Your task to perform on an android device: snooze an email in the gmail app Image 0: 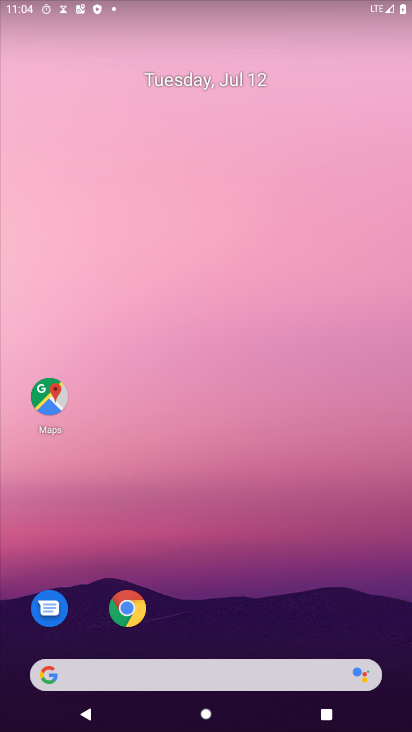
Step 0: drag from (256, 612) to (280, 124)
Your task to perform on an android device: snooze an email in the gmail app Image 1: 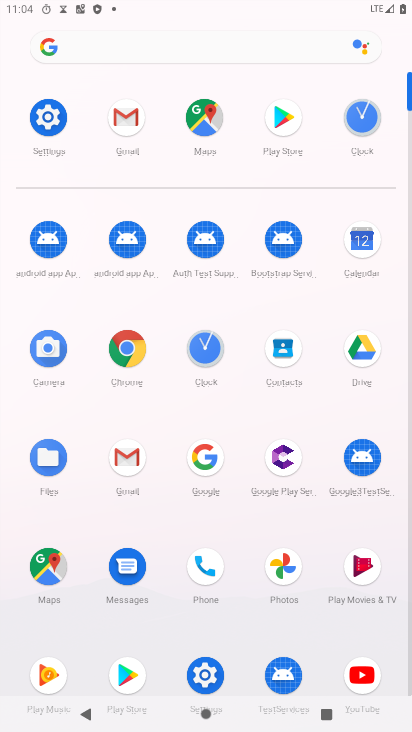
Step 1: click (125, 455)
Your task to perform on an android device: snooze an email in the gmail app Image 2: 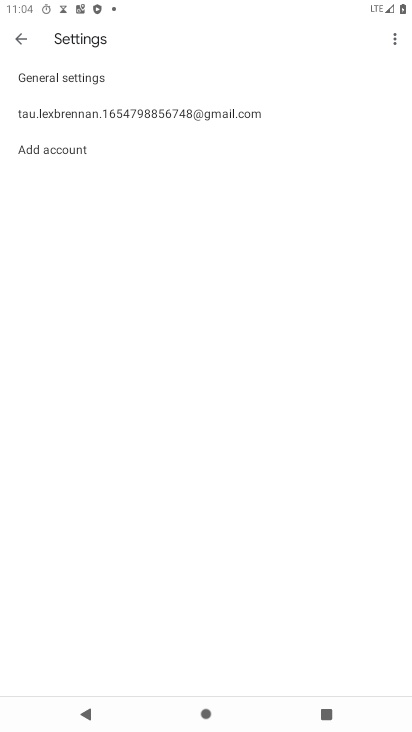
Step 2: click (23, 39)
Your task to perform on an android device: snooze an email in the gmail app Image 3: 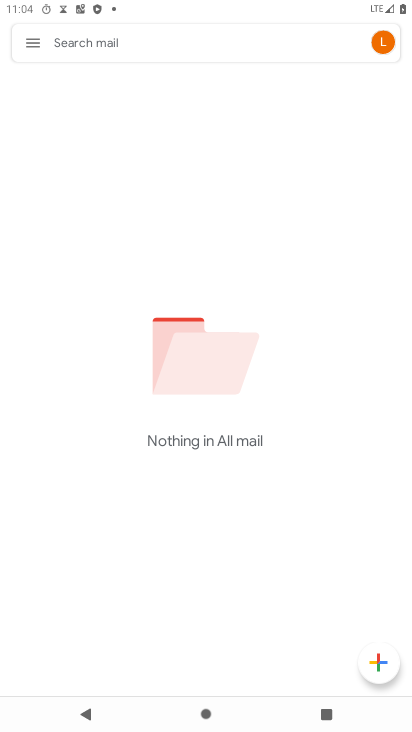
Step 3: click (25, 40)
Your task to perform on an android device: snooze an email in the gmail app Image 4: 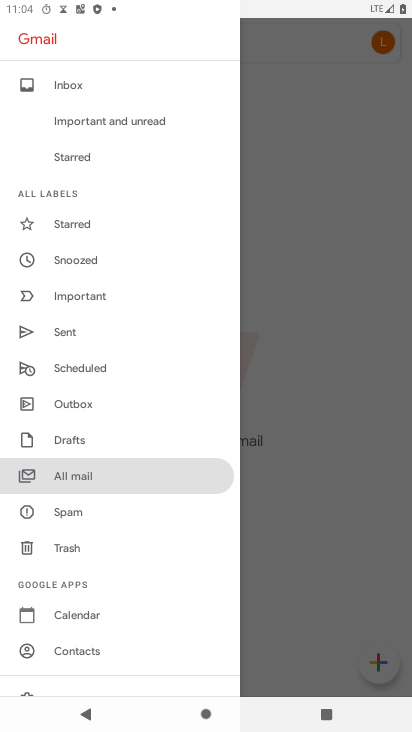
Step 4: click (75, 475)
Your task to perform on an android device: snooze an email in the gmail app Image 5: 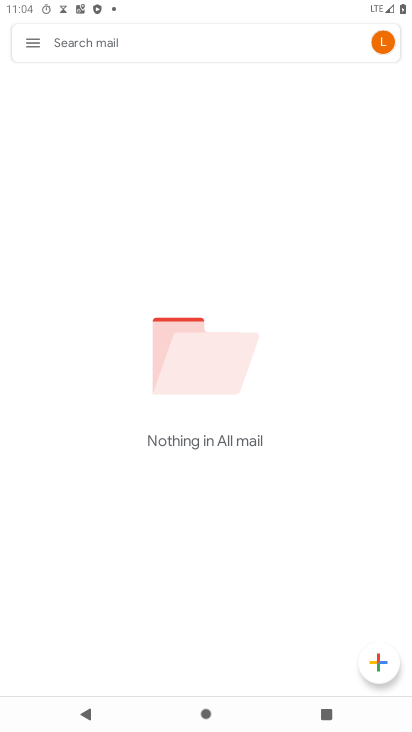
Step 5: task complete